Your task to perform on an android device: Search for vegetarian restaurants on Maps Image 0: 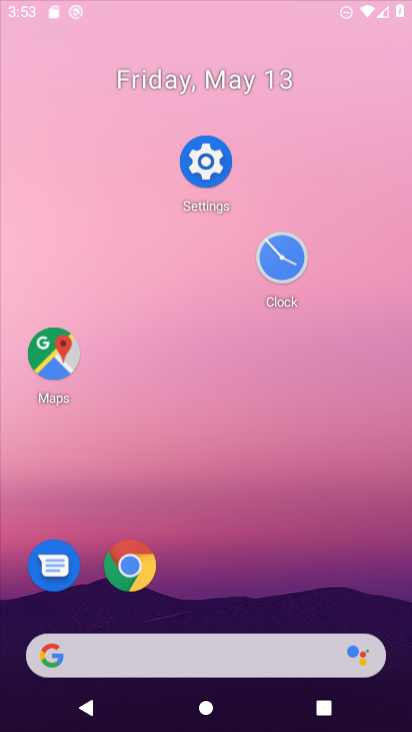
Step 0: drag from (229, 432) to (230, 337)
Your task to perform on an android device: Search for vegetarian restaurants on Maps Image 1: 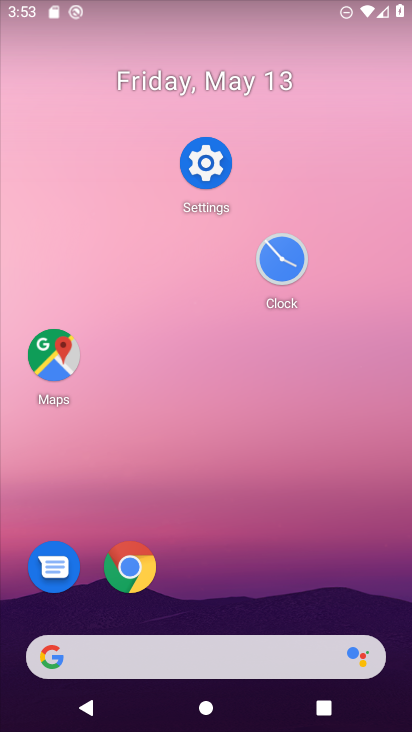
Step 1: click (221, 193)
Your task to perform on an android device: Search for vegetarian restaurants on Maps Image 2: 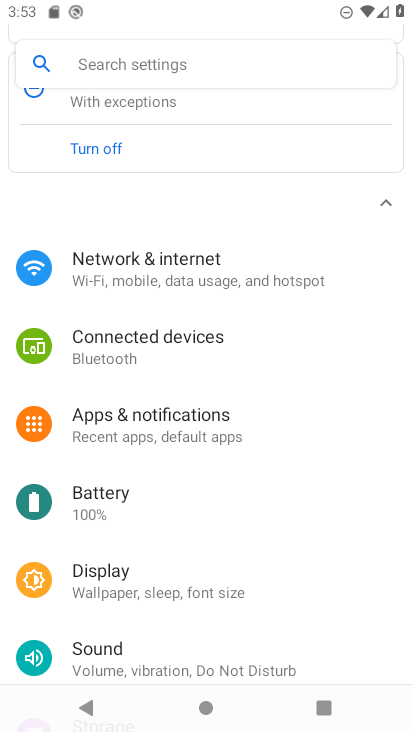
Step 2: press home button
Your task to perform on an android device: Search for vegetarian restaurants on Maps Image 3: 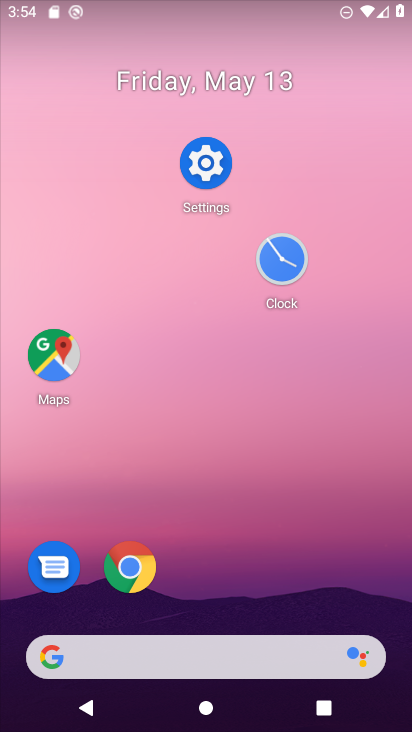
Step 3: click (53, 363)
Your task to perform on an android device: Search for vegetarian restaurants on Maps Image 4: 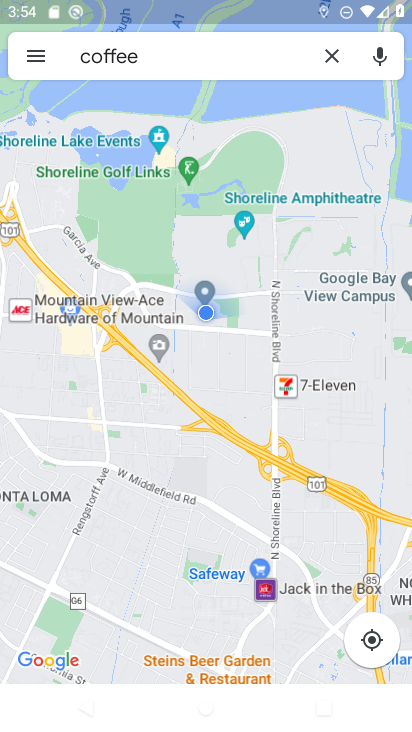
Step 4: click (168, 59)
Your task to perform on an android device: Search for vegetarian restaurants on Maps Image 5: 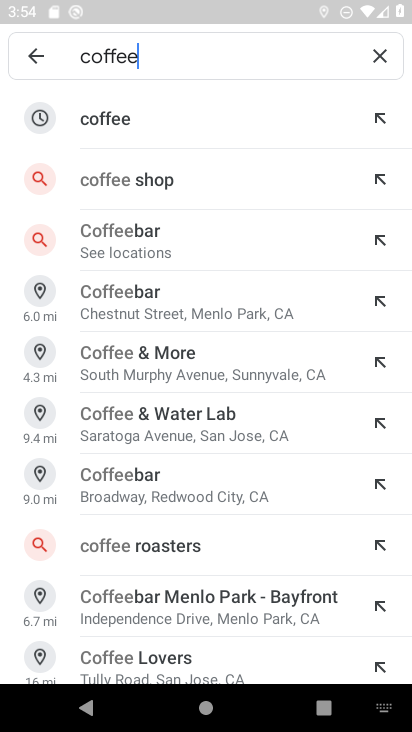
Step 5: click (387, 50)
Your task to perform on an android device: Search for vegetarian restaurants on Maps Image 6: 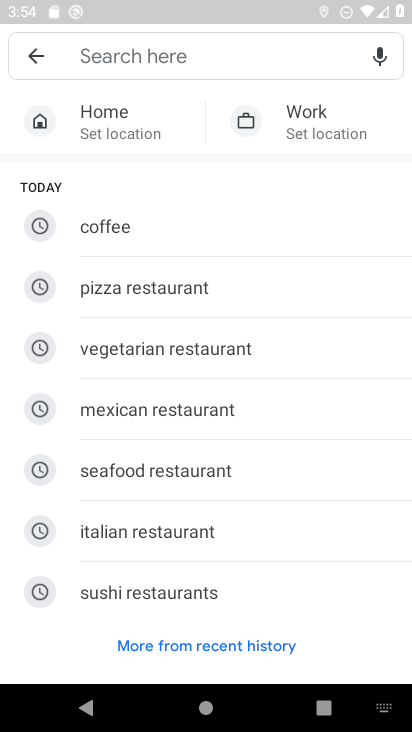
Step 6: click (141, 373)
Your task to perform on an android device: Search for vegetarian restaurants on Maps Image 7: 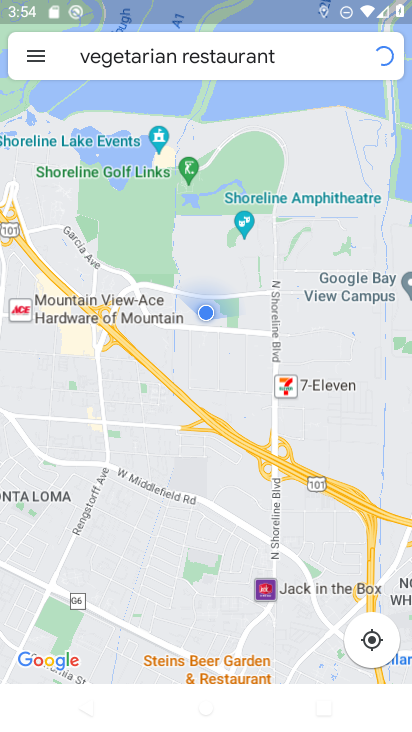
Step 7: task complete